Your task to perform on an android device: Open network settings Image 0: 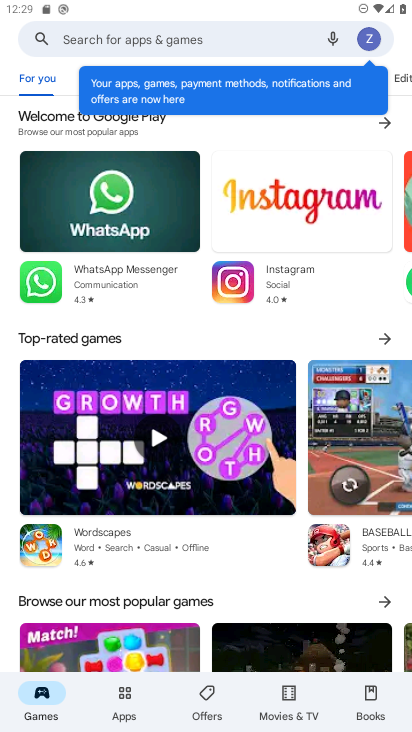
Step 0: drag from (243, 10) to (212, 573)
Your task to perform on an android device: Open network settings Image 1: 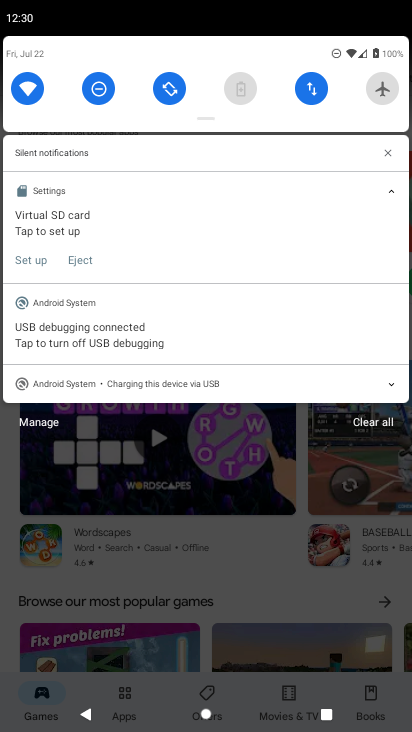
Step 1: click (317, 97)
Your task to perform on an android device: Open network settings Image 2: 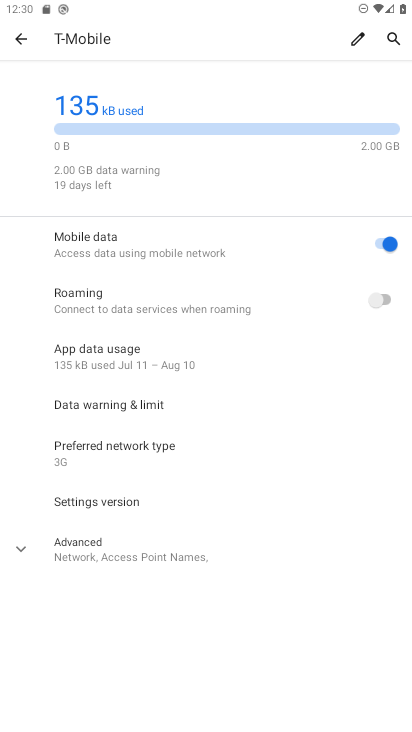
Step 2: task complete